Your task to perform on an android device: turn pop-ups off in chrome Image 0: 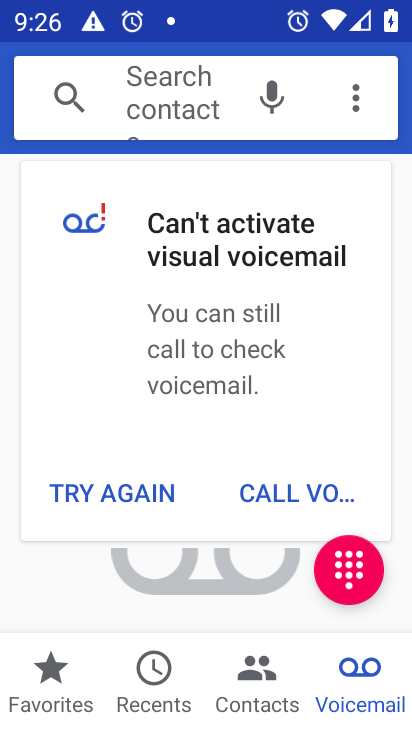
Step 0: press home button
Your task to perform on an android device: turn pop-ups off in chrome Image 1: 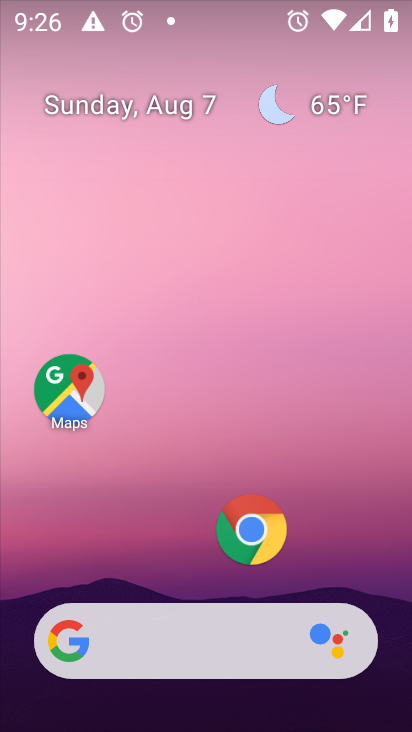
Step 1: click (263, 540)
Your task to perform on an android device: turn pop-ups off in chrome Image 2: 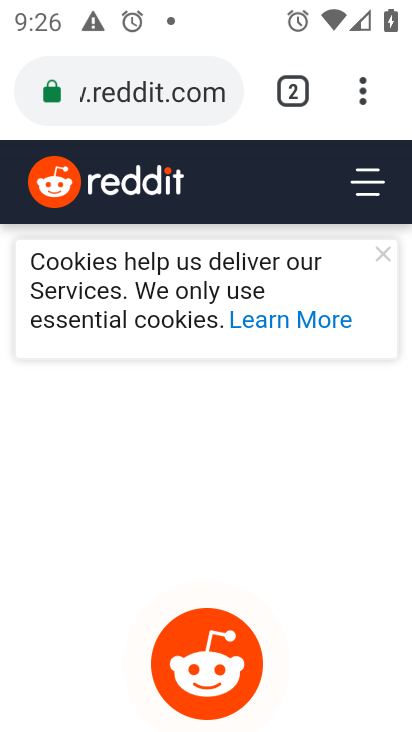
Step 2: click (356, 92)
Your task to perform on an android device: turn pop-ups off in chrome Image 3: 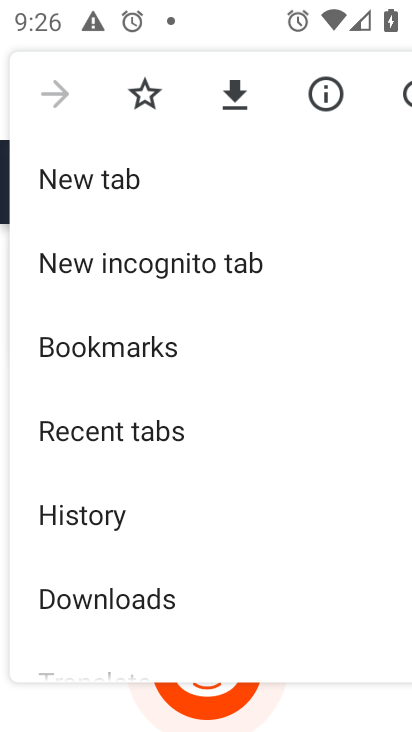
Step 3: drag from (129, 521) to (177, 156)
Your task to perform on an android device: turn pop-ups off in chrome Image 4: 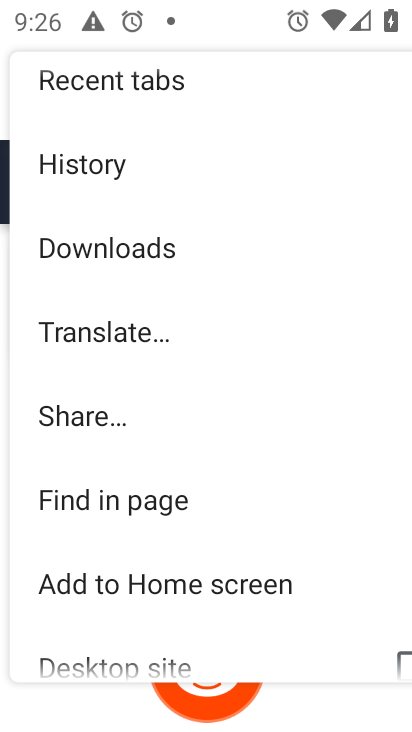
Step 4: drag from (138, 595) to (182, 148)
Your task to perform on an android device: turn pop-ups off in chrome Image 5: 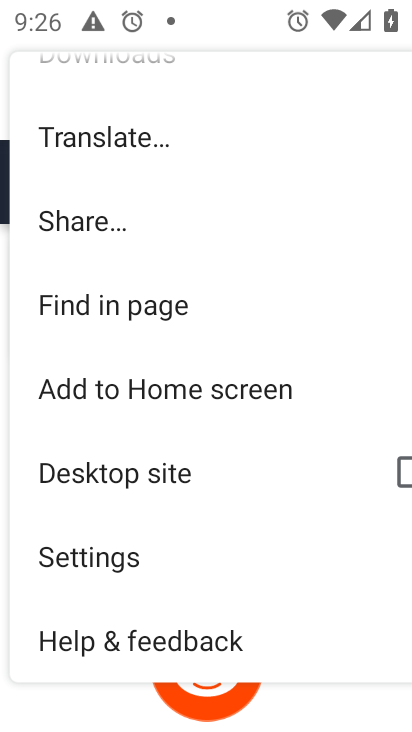
Step 5: drag from (133, 573) to (174, 303)
Your task to perform on an android device: turn pop-ups off in chrome Image 6: 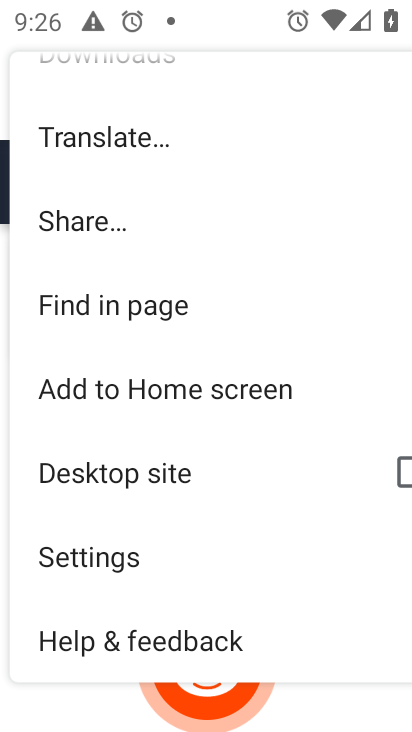
Step 6: click (96, 565)
Your task to perform on an android device: turn pop-ups off in chrome Image 7: 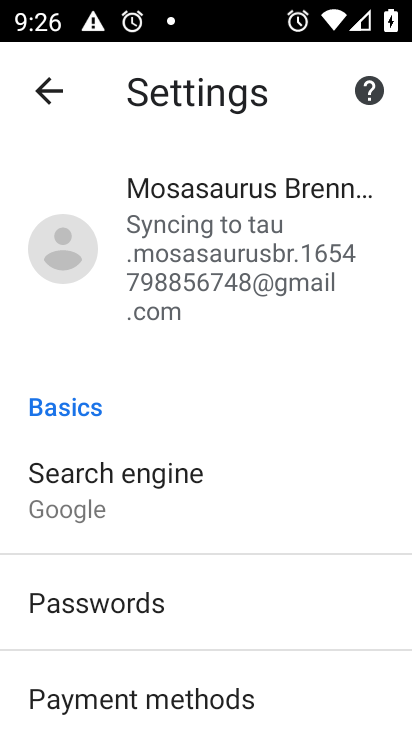
Step 7: drag from (86, 583) to (105, 345)
Your task to perform on an android device: turn pop-ups off in chrome Image 8: 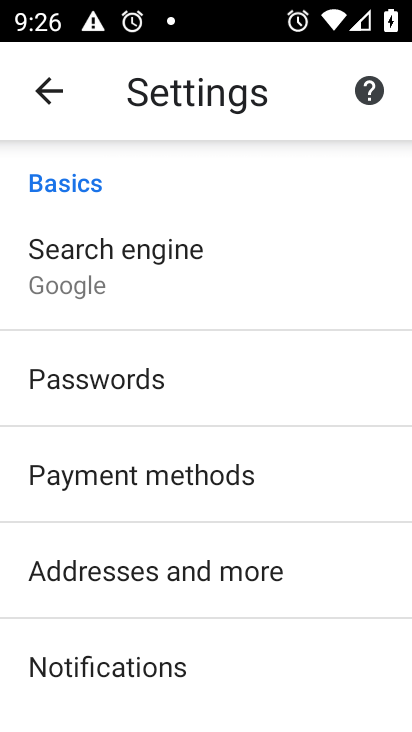
Step 8: drag from (180, 645) to (183, 336)
Your task to perform on an android device: turn pop-ups off in chrome Image 9: 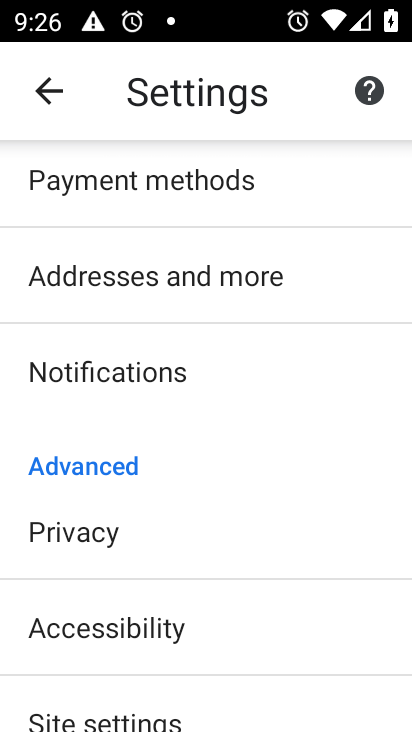
Step 9: drag from (127, 618) to (130, 491)
Your task to perform on an android device: turn pop-ups off in chrome Image 10: 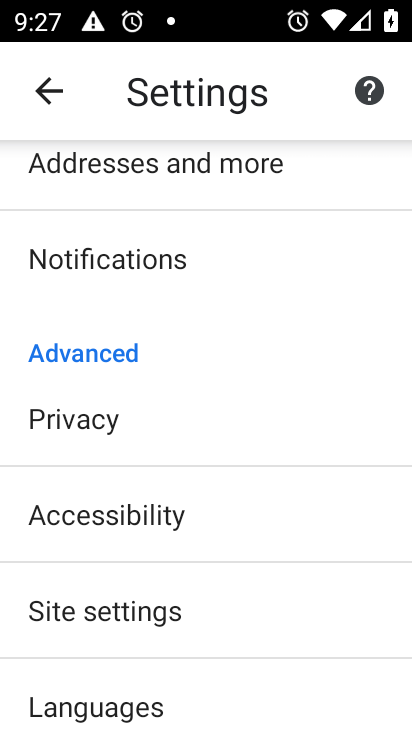
Step 10: click (97, 620)
Your task to perform on an android device: turn pop-ups off in chrome Image 11: 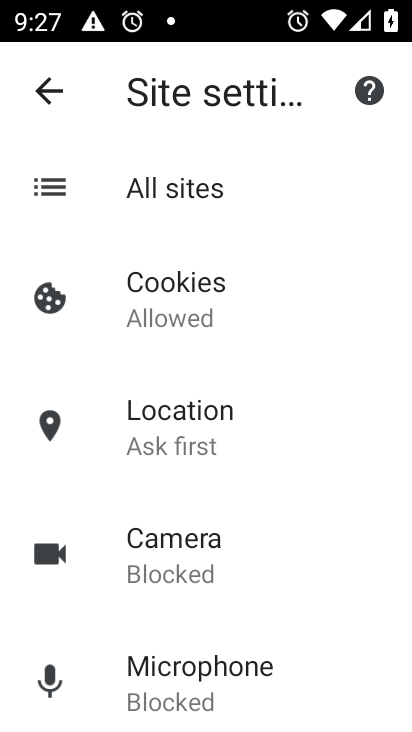
Step 11: drag from (145, 611) to (199, 317)
Your task to perform on an android device: turn pop-ups off in chrome Image 12: 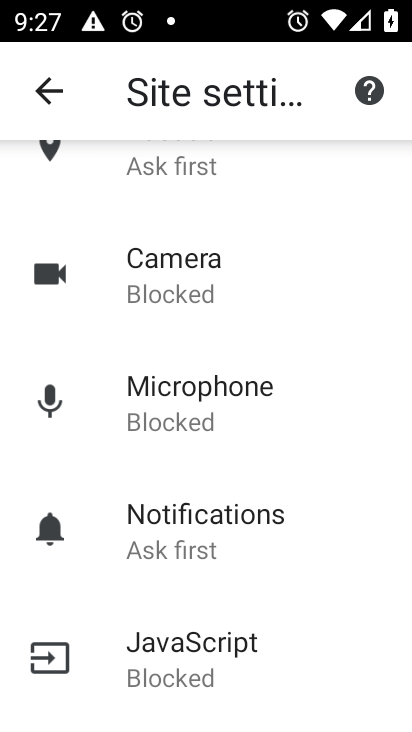
Step 12: drag from (186, 626) to (209, 404)
Your task to perform on an android device: turn pop-ups off in chrome Image 13: 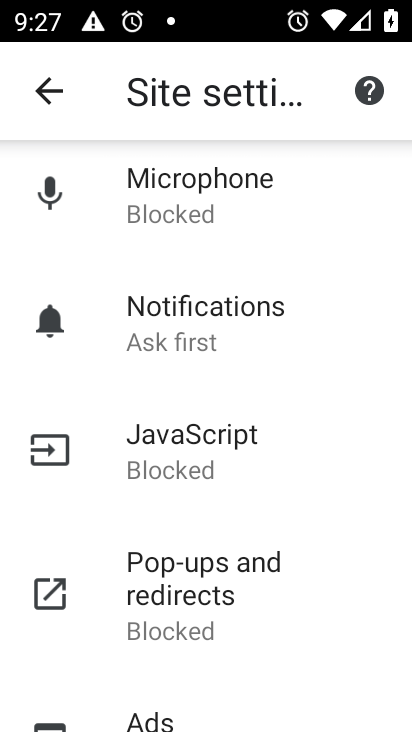
Step 13: click (194, 575)
Your task to perform on an android device: turn pop-ups off in chrome Image 14: 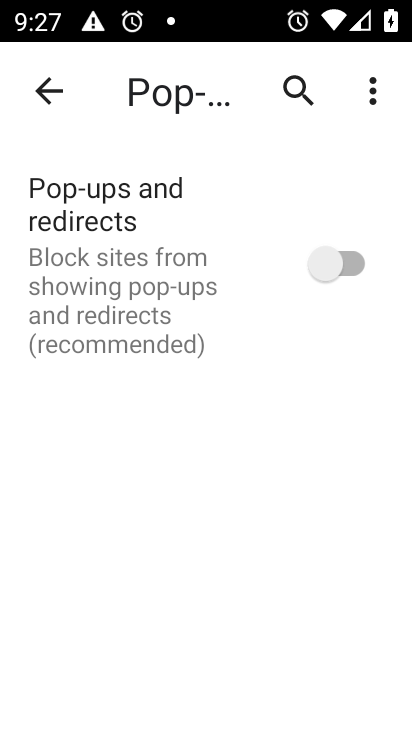
Step 14: task complete